Your task to perform on an android device: Open the Play Movies app and select the watchlist tab. Image 0: 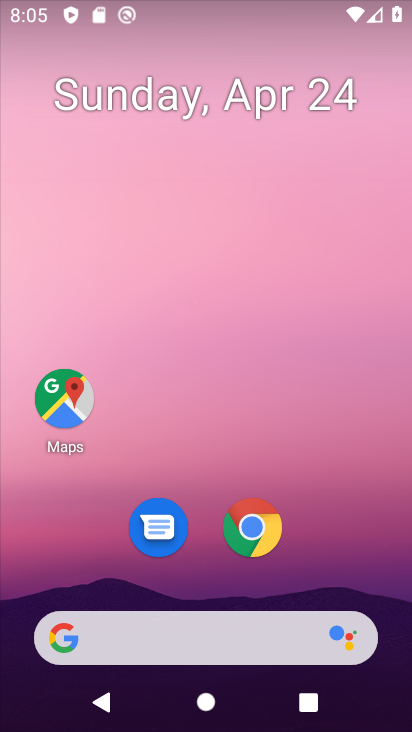
Step 0: drag from (334, 540) to (353, 34)
Your task to perform on an android device: Open the Play Movies app and select the watchlist tab. Image 1: 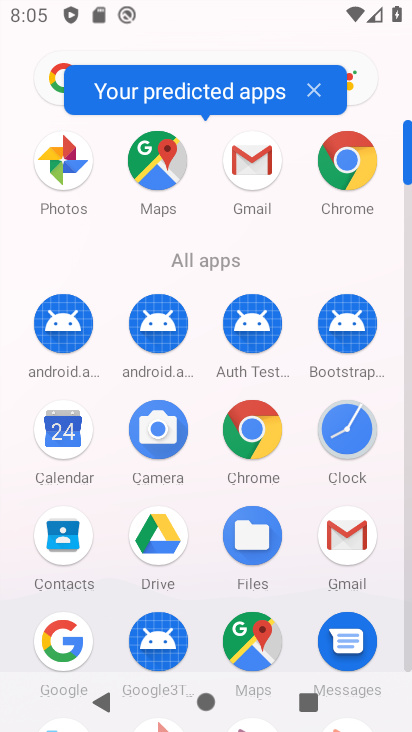
Step 1: drag from (282, 542) to (276, 234)
Your task to perform on an android device: Open the Play Movies app and select the watchlist tab. Image 2: 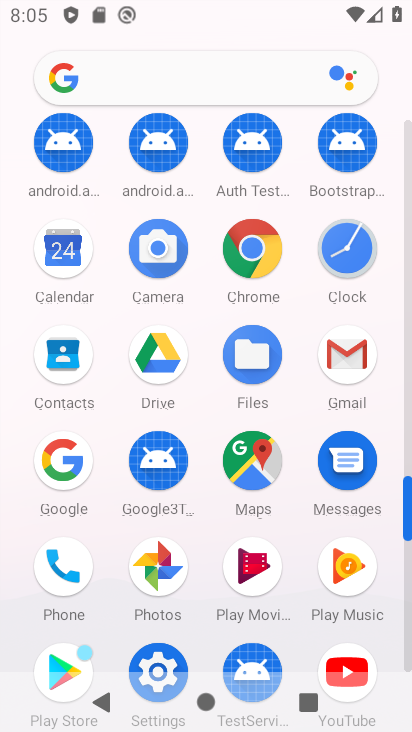
Step 2: click (244, 571)
Your task to perform on an android device: Open the Play Movies app and select the watchlist tab. Image 3: 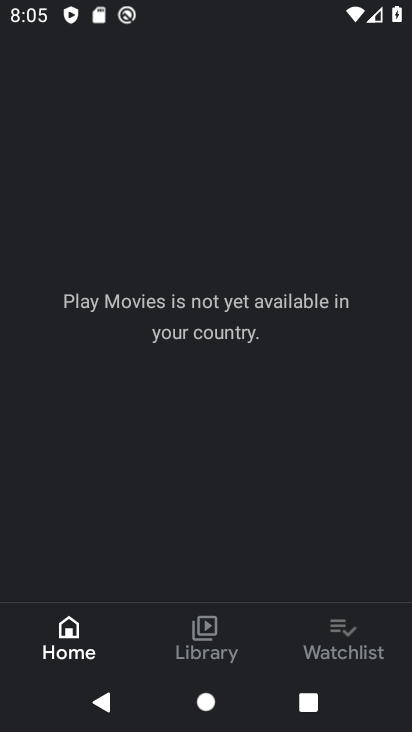
Step 3: click (343, 639)
Your task to perform on an android device: Open the Play Movies app and select the watchlist tab. Image 4: 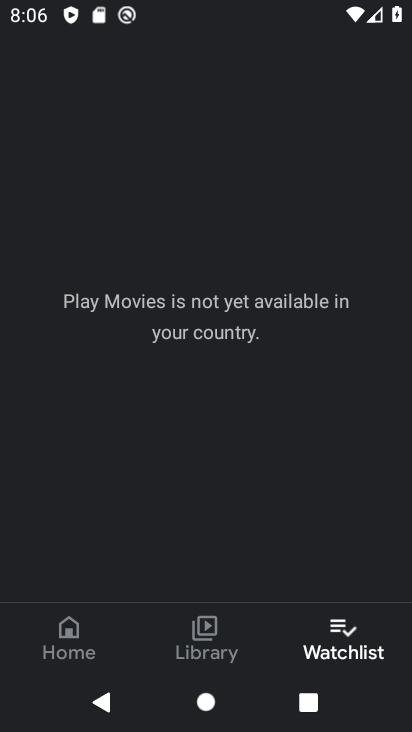
Step 4: task complete